Your task to perform on an android device: see tabs open on other devices in the chrome app Image 0: 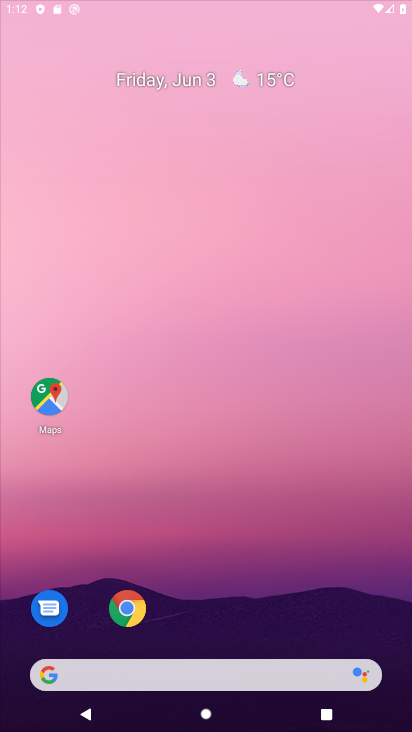
Step 0: click (294, 226)
Your task to perform on an android device: see tabs open on other devices in the chrome app Image 1: 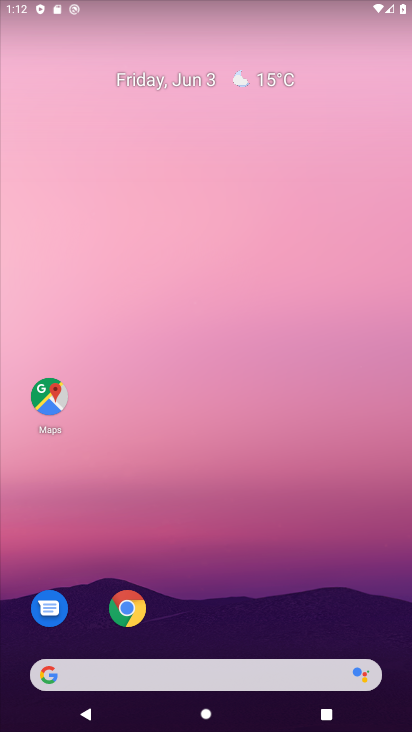
Step 1: drag from (274, 584) to (243, 0)
Your task to perform on an android device: see tabs open on other devices in the chrome app Image 2: 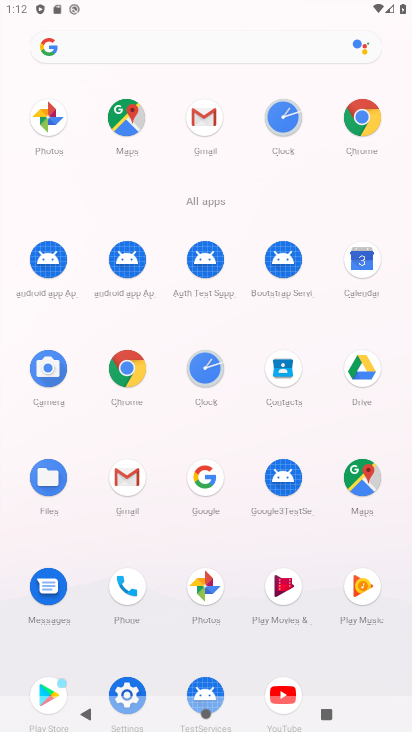
Step 2: click (364, 112)
Your task to perform on an android device: see tabs open on other devices in the chrome app Image 3: 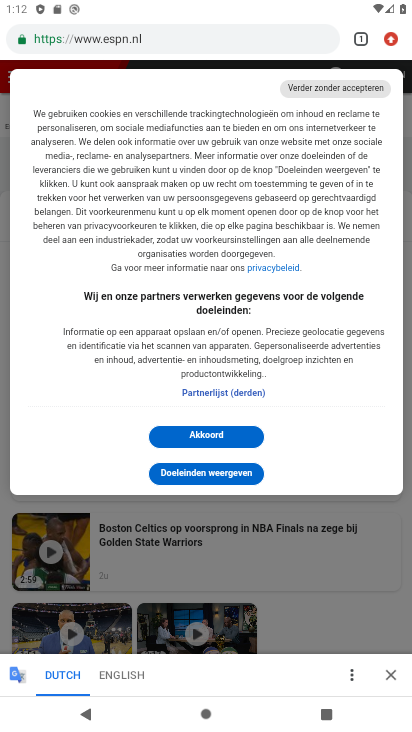
Step 3: task complete